Your task to perform on an android device: see creations saved in the google photos Image 0: 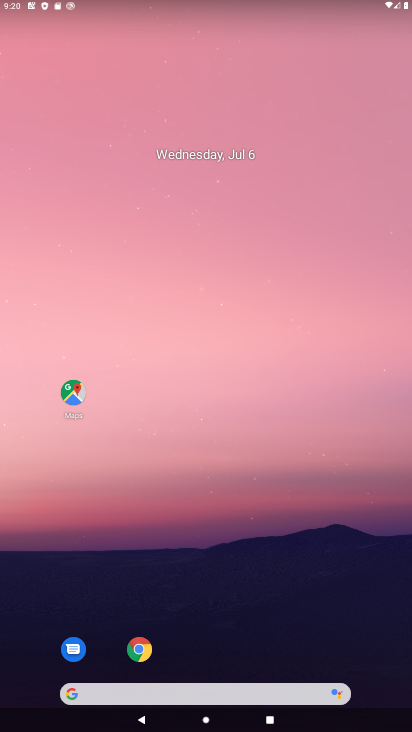
Step 0: drag from (232, 634) to (210, 115)
Your task to perform on an android device: see creations saved in the google photos Image 1: 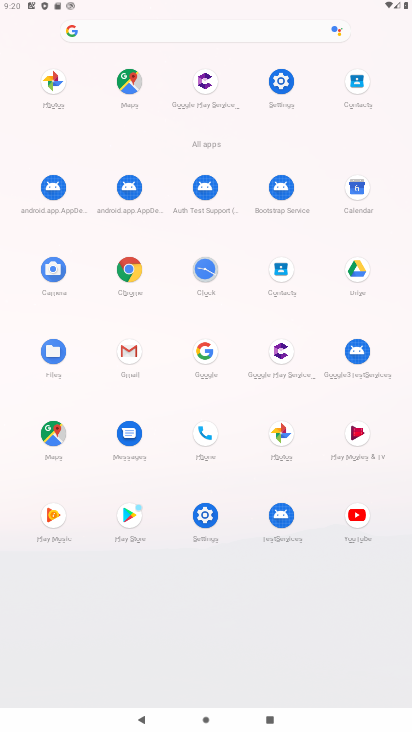
Step 1: click (55, 81)
Your task to perform on an android device: see creations saved in the google photos Image 2: 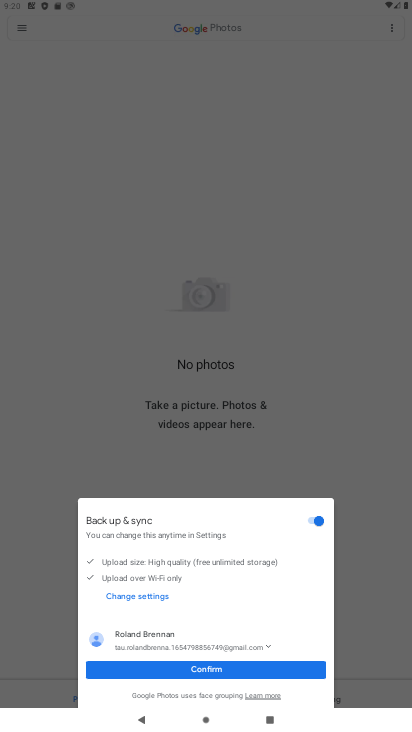
Step 2: click (222, 669)
Your task to perform on an android device: see creations saved in the google photos Image 3: 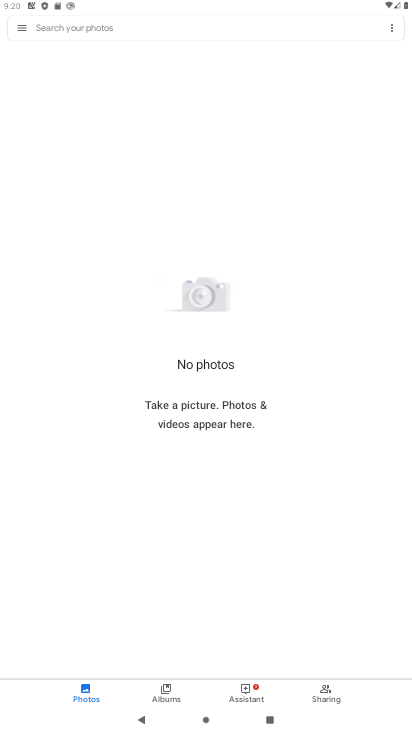
Step 3: click (21, 28)
Your task to perform on an android device: see creations saved in the google photos Image 4: 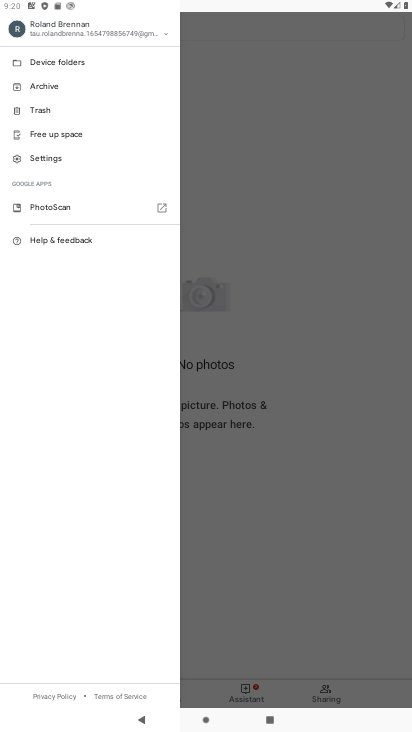
Step 4: click (55, 159)
Your task to perform on an android device: see creations saved in the google photos Image 5: 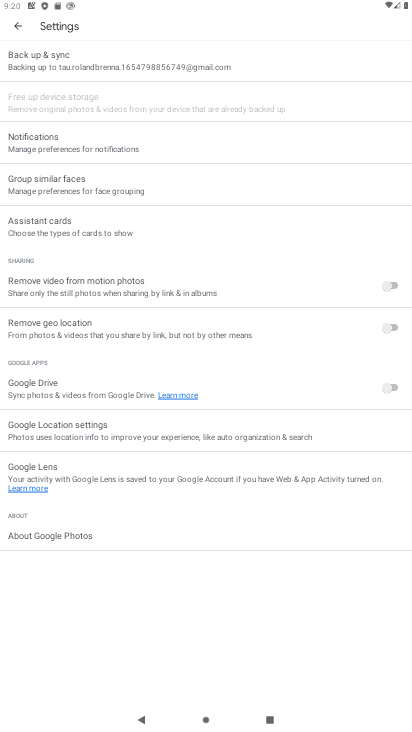
Step 5: press back button
Your task to perform on an android device: see creations saved in the google photos Image 6: 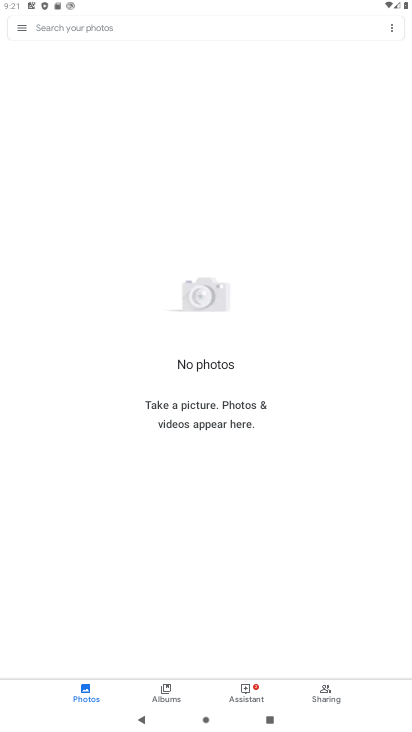
Step 6: click (167, 691)
Your task to perform on an android device: see creations saved in the google photos Image 7: 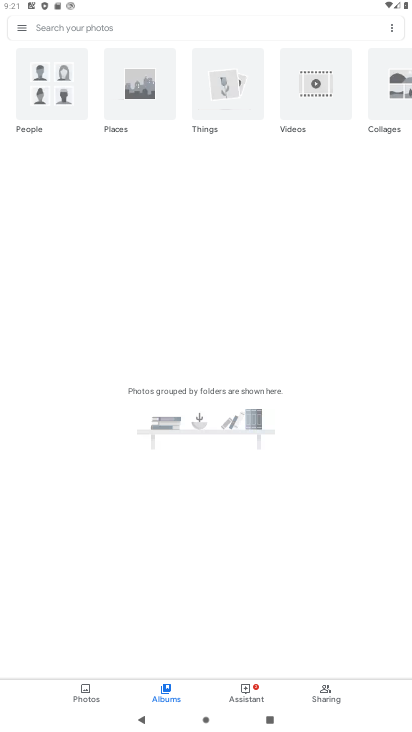
Step 7: click (84, 690)
Your task to perform on an android device: see creations saved in the google photos Image 8: 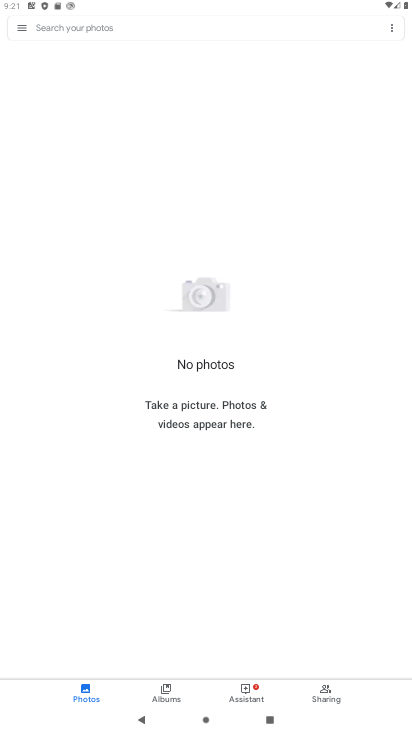
Step 8: click (253, 704)
Your task to perform on an android device: see creations saved in the google photos Image 9: 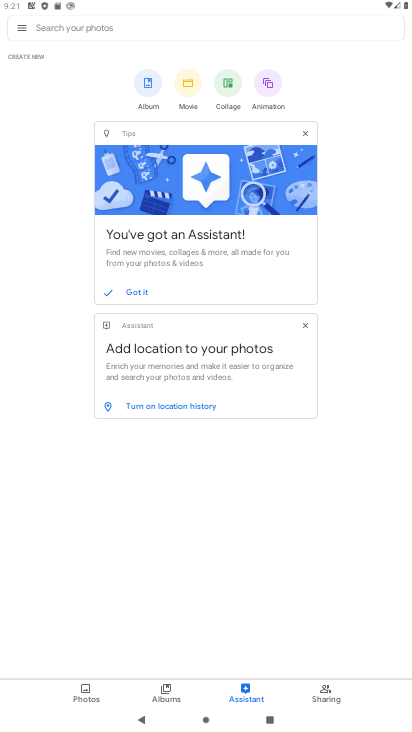
Step 9: click (332, 699)
Your task to perform on an android device: see creations saved in the google photos Image 10: 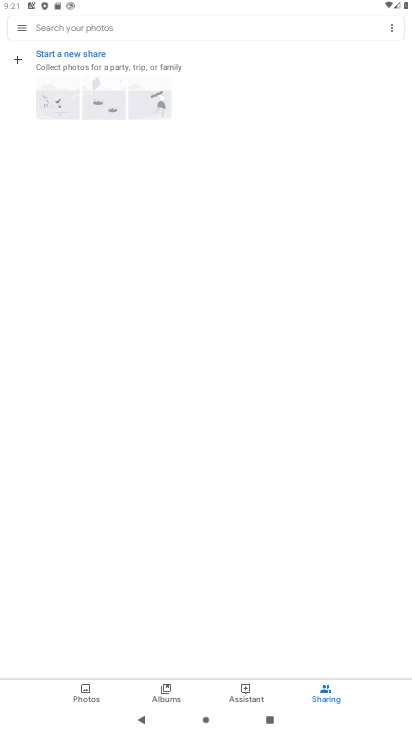
Step 10: click (398, 31)
Your task to perform on an android device: see creations saved in the google photos Image 11: 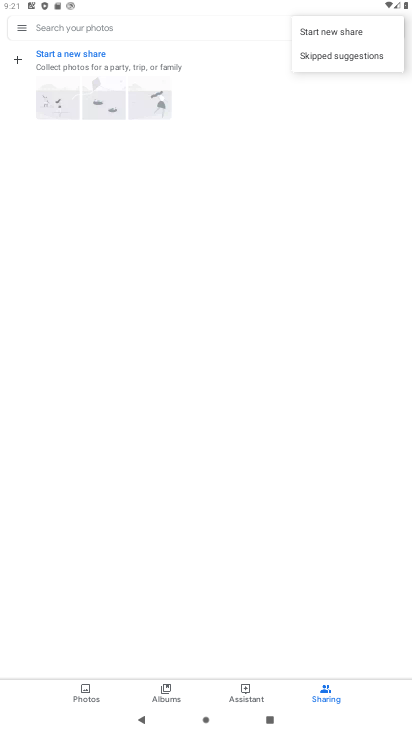
Step 11: task complete